Your task to perform on an android device: open app "Facebook Lite" Image 0: 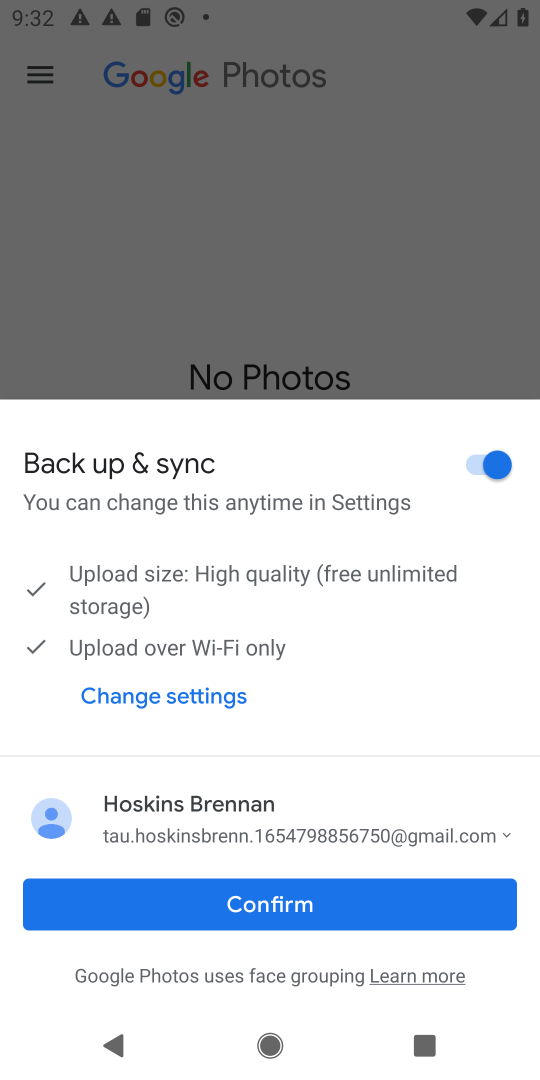
Step 0: press home button
Your task to perform on an android device: open app "Facebook Lite" Image 1: 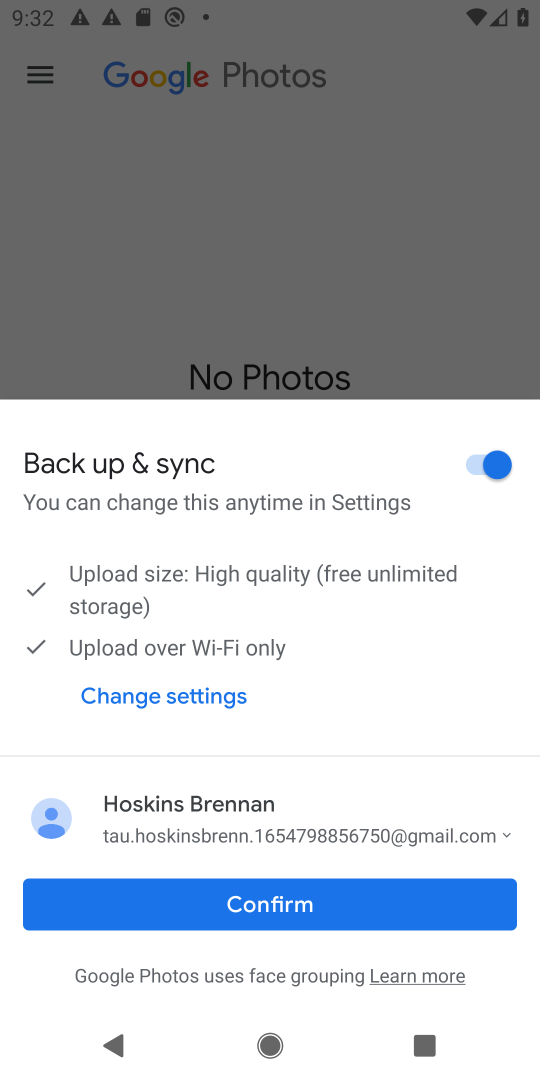
Step 1: press home button
Your task to perform on an android device: open app "Facebook Lite" Image 2: 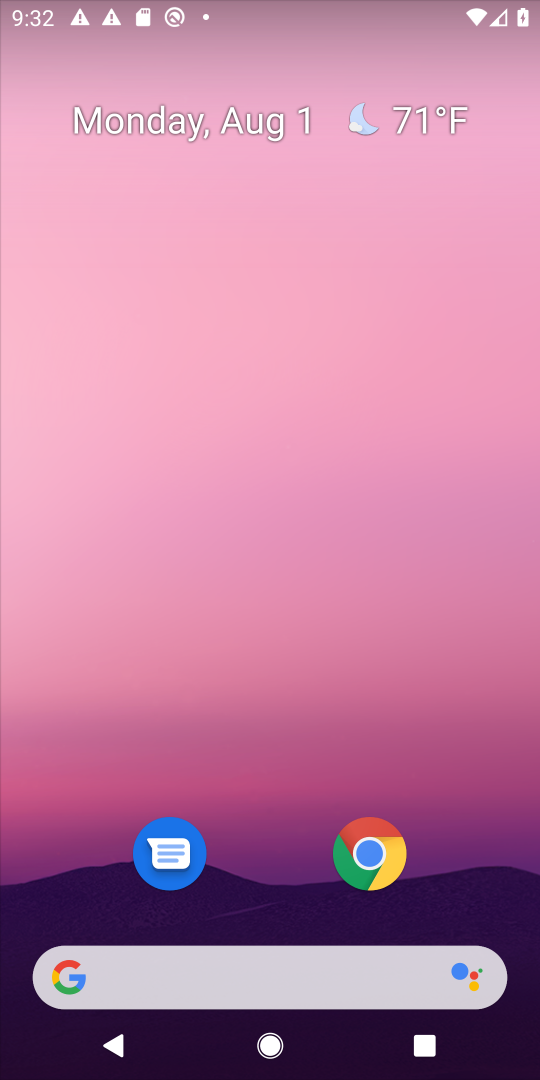
Step 2: drag from (252, 909) to (355, 130)
Your task to perform on an android device: open app "Facebook Lite" Image 3: 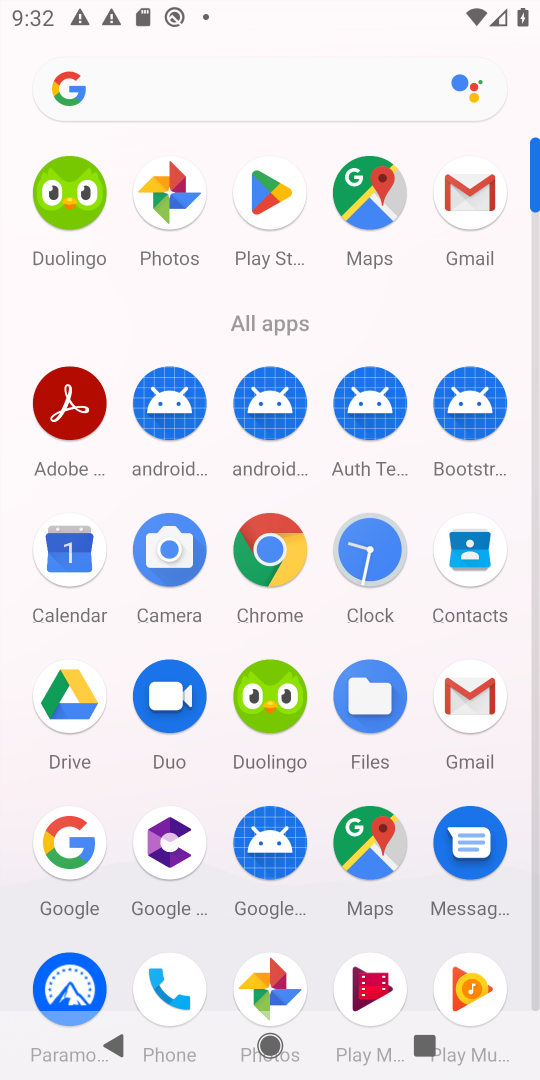
Step 3: click (271, 192)
Your task to perform on an android device: open app "Facebook Lite" Image 4: 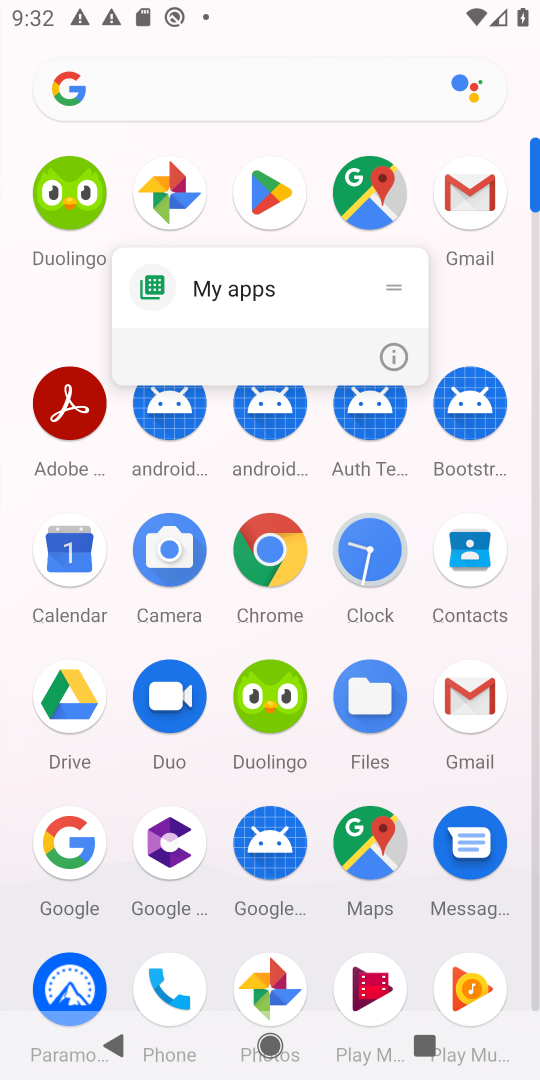
Step 4: click (402, 352)
Your task to perform on an android device: open app "Facebook Lite" Image 5: 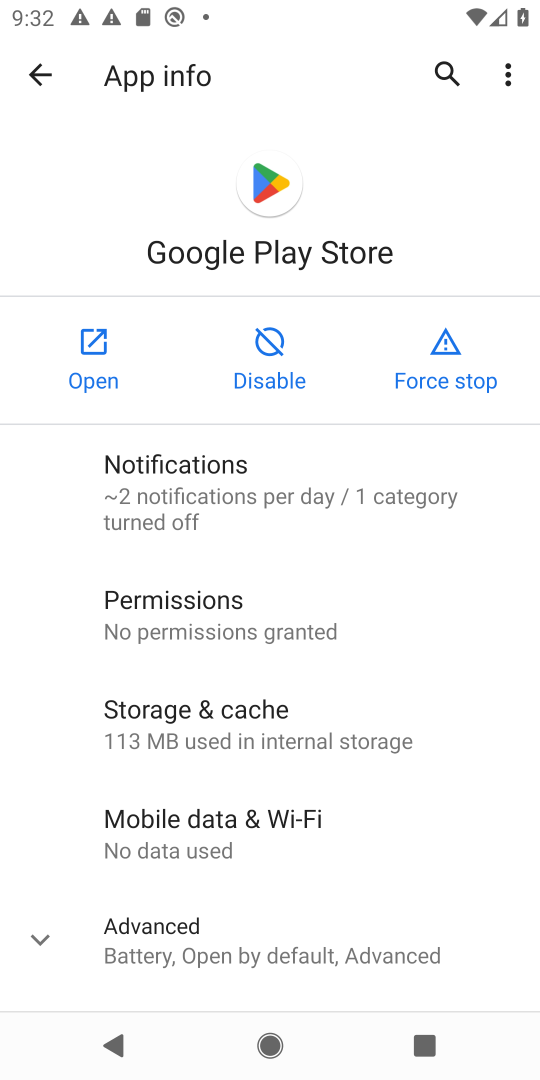
Step 5: click (108, 371)
Your task to perform on an android device: open app "Facebook Lite" Image 6: 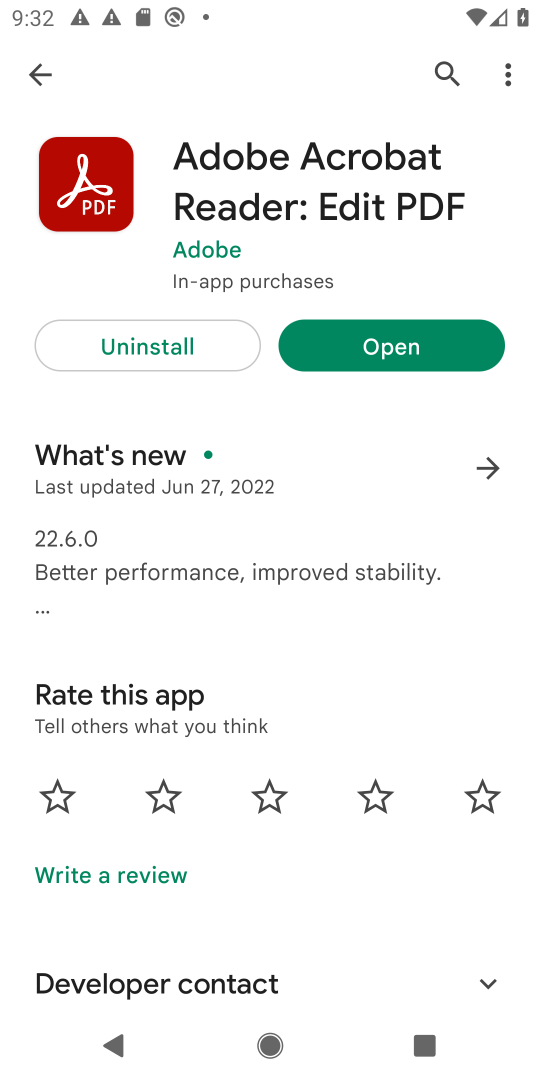
Step 6: click (376, 351)
Your task to perform on an android device: open app "Facebook Lite" Image 7: 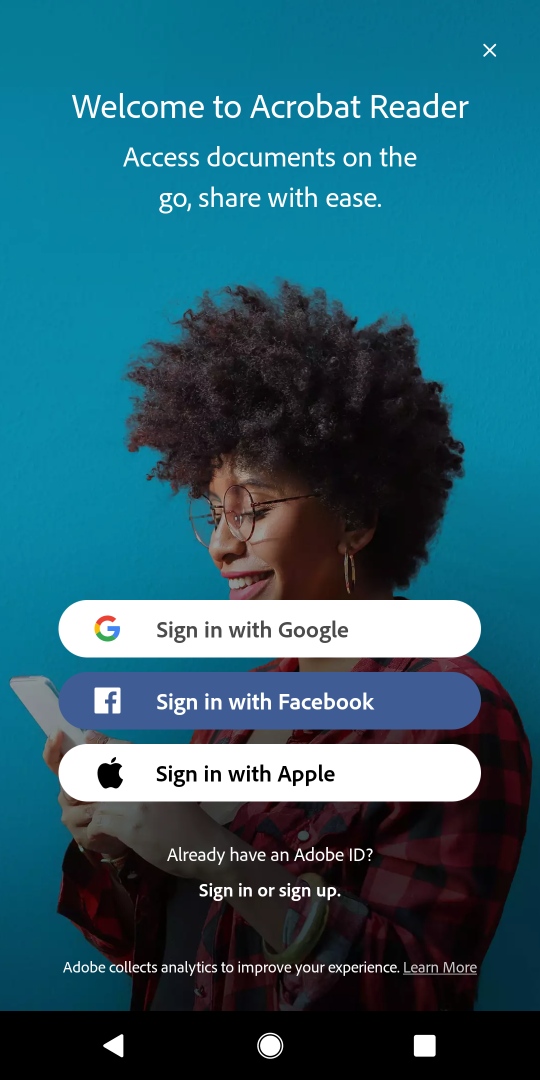
Step 7: press back button
Your task to perform on an android device: open app "Facebook Lite" Image 8: 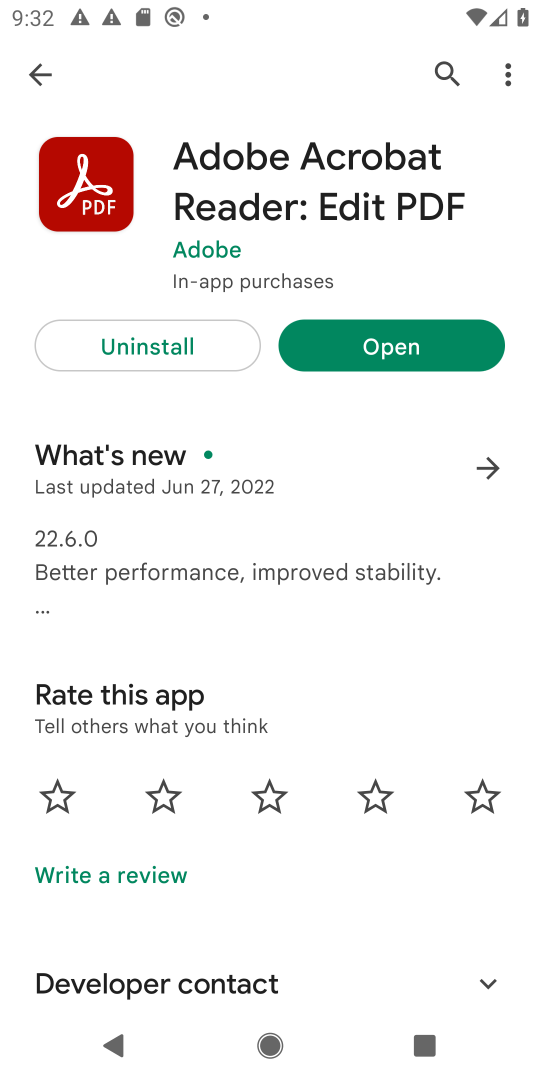
Step 8: click (446, 71)
Your task to perform on an android device: open app "Facebook Lite" Image 9: 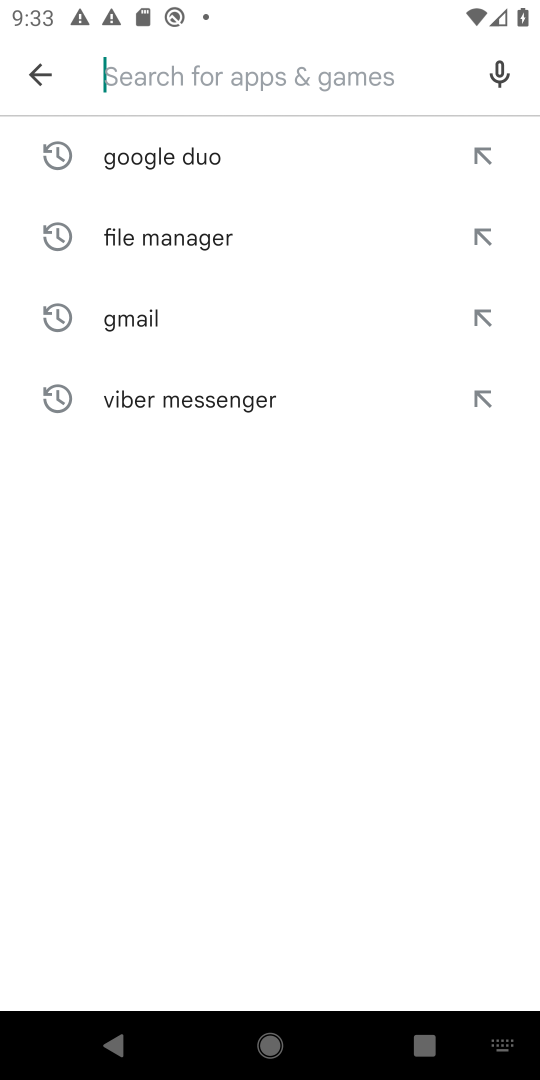
Step 9: type "Facebook Lite"
Your task to perform on an android device: open app "Facebook Lite" Image 10: 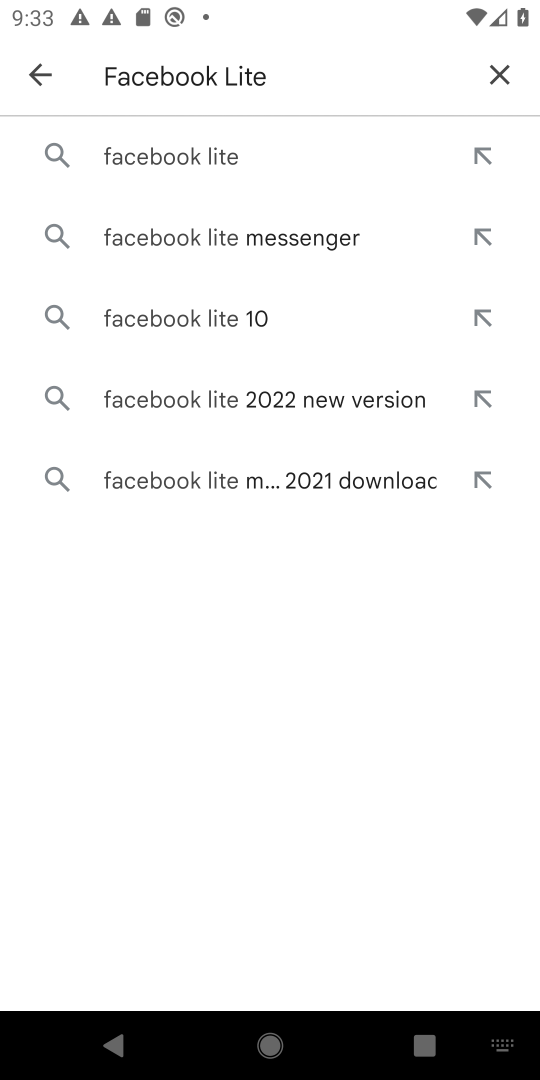
Step 10: click (277, 154)
Your task to perform on an android device: open app "Facebook Lite" Image 11: 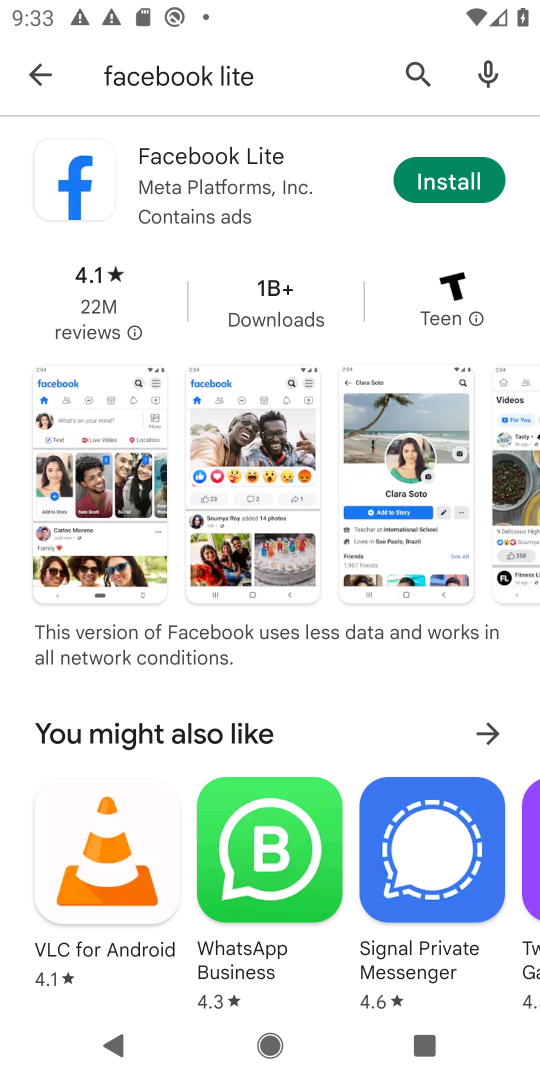
Step 11: click (165, 161)
Your task to perform on an android device: open app "Facebook Lite" Image 12: 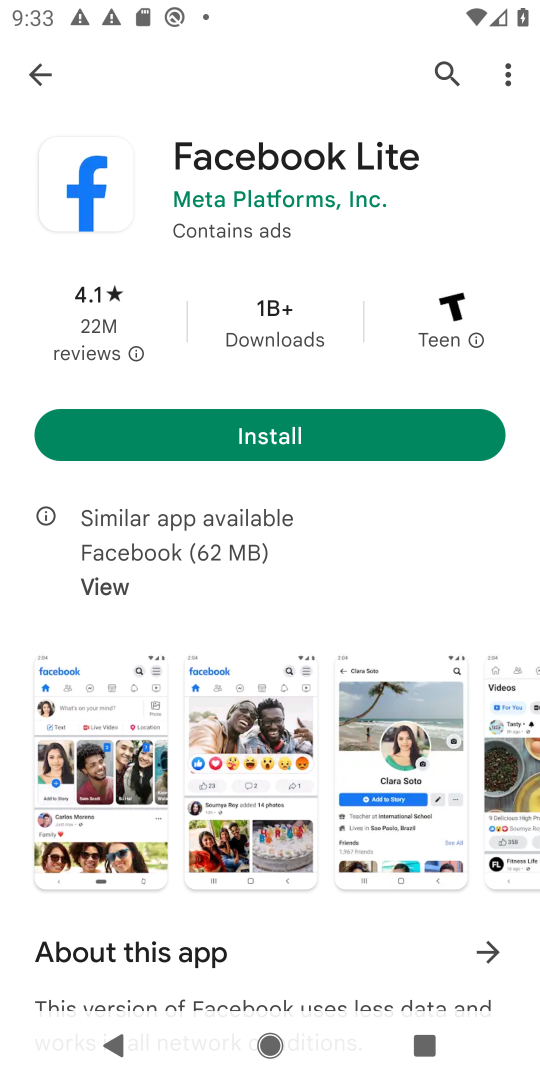
Step 12: click (308, 185)
Your task to perform on an android device: open app "Facebook Lite" Image 13: 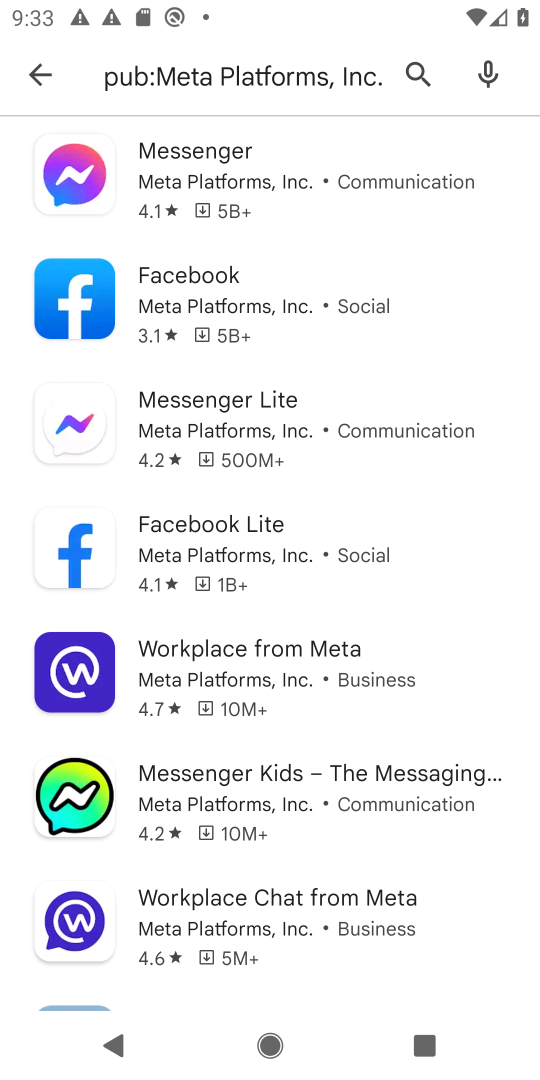
Step 13: click (47, 74)
Your task to perform on an android device: open app "Facebook Lite" Image 14: 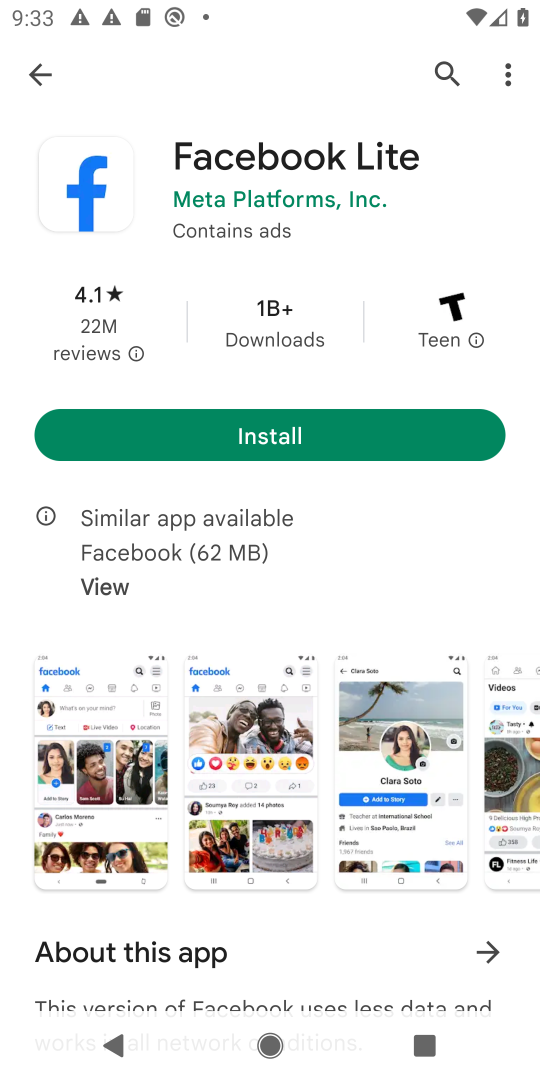
Step 14: click (285, 154)
Your task to perform on an android device: open app "Facebook Lite" Image 15: 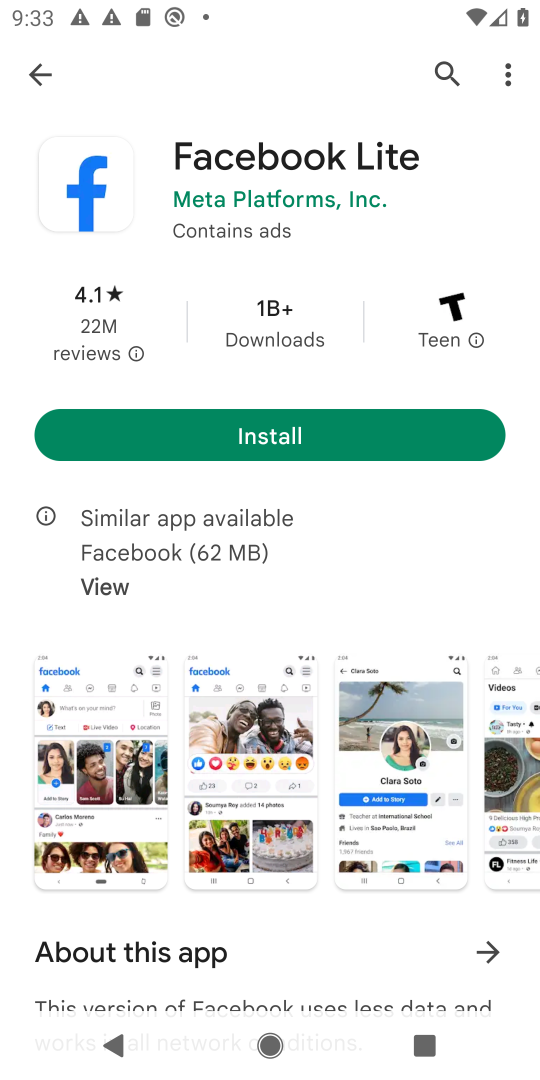
Step 15: click (425, 140)
Your task to perform on an android device: open app "Facebook Lite" Image 16: 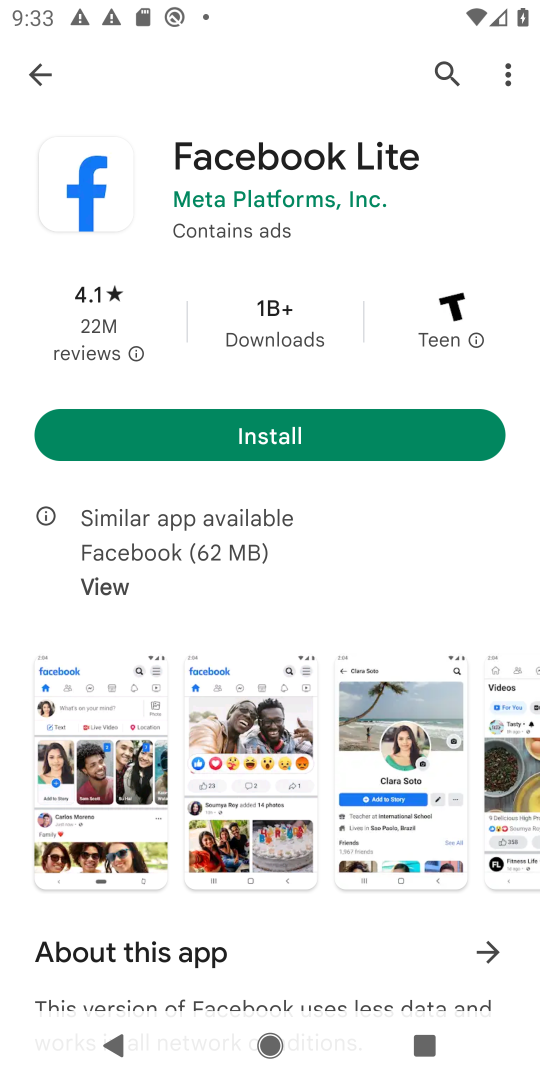
Step 16: click (437, 159)
Your task to perform on an android device: open app "Facebook Lite" Image 17: 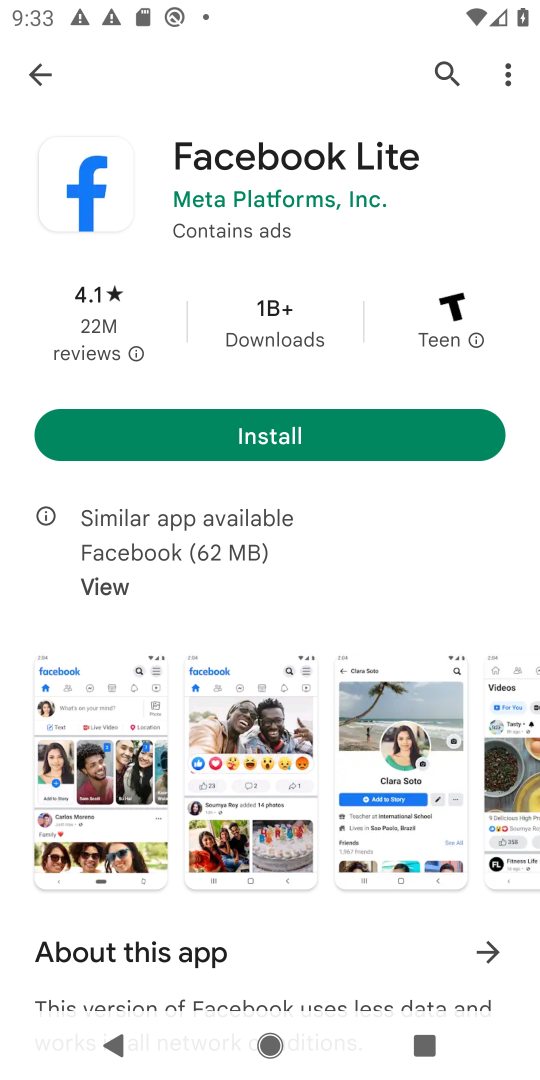
Step 17: task complete